Your task to perform on an android device: uninstall "Grab" Image 0: 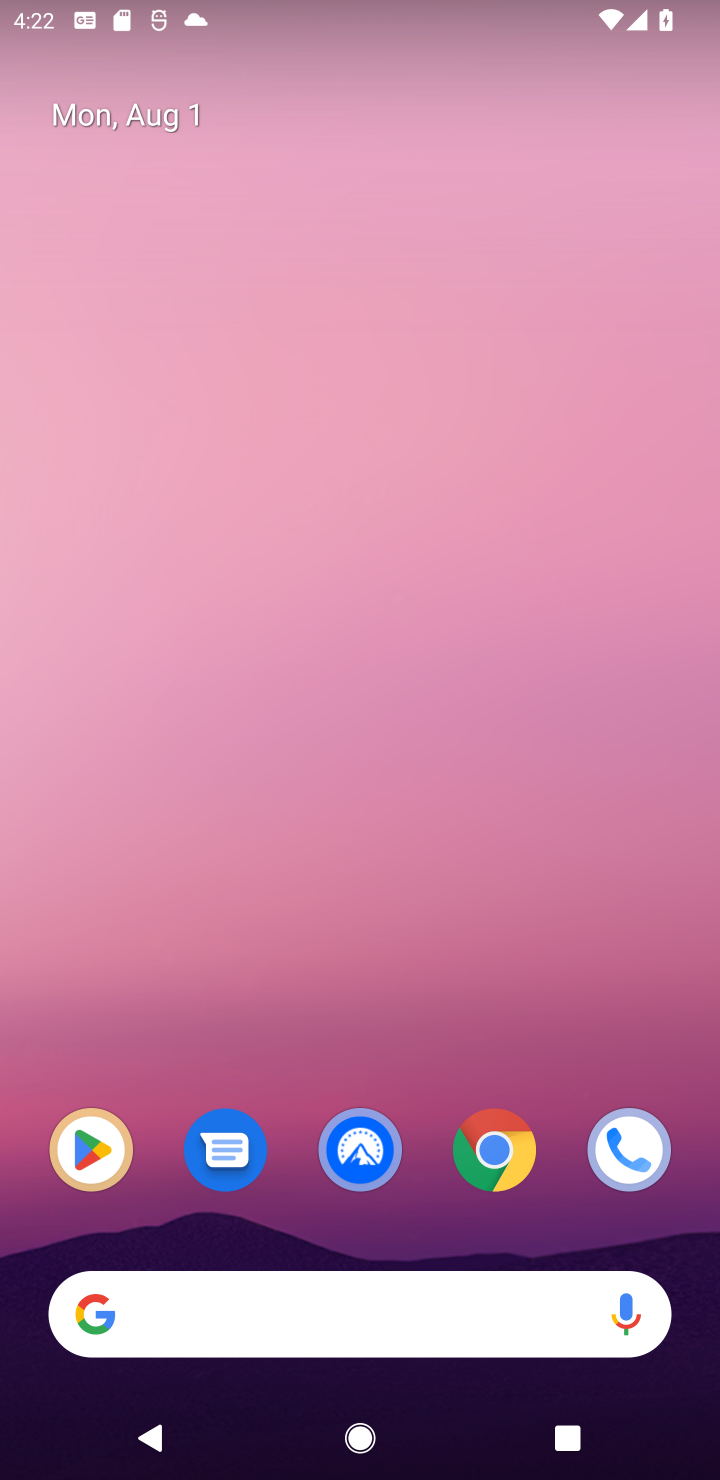
Step 0: task impossible